Your task to perform on an android device: Check the weather Image 0: 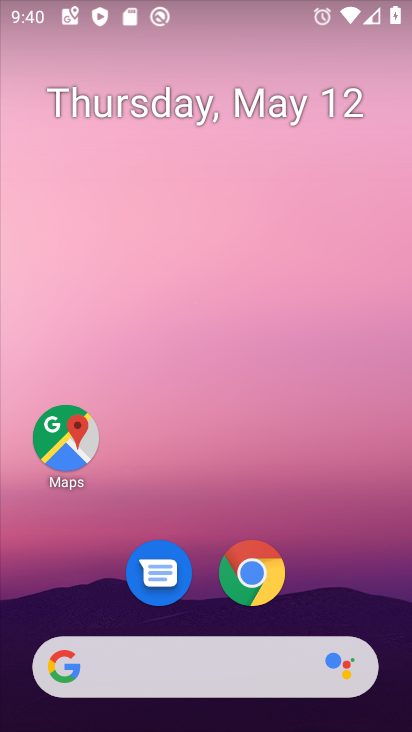
Step 0: drag from (324, 575) to (251, 102)
Your task to perform on an android device: Check the weather Image 1: 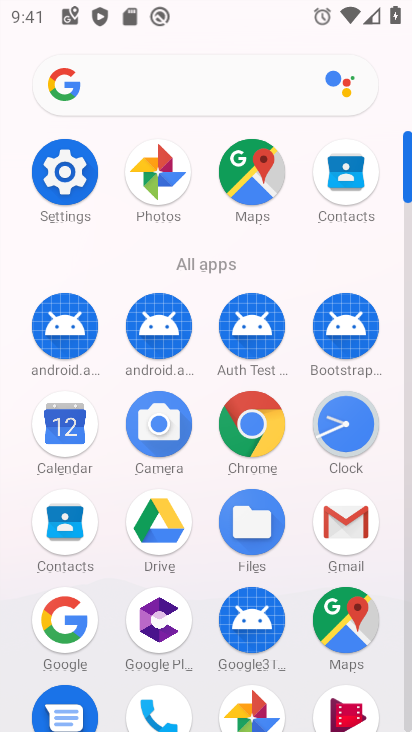
Step 1: click (60, 619)
Your task to perform on an android device: Check the weather Image 2: 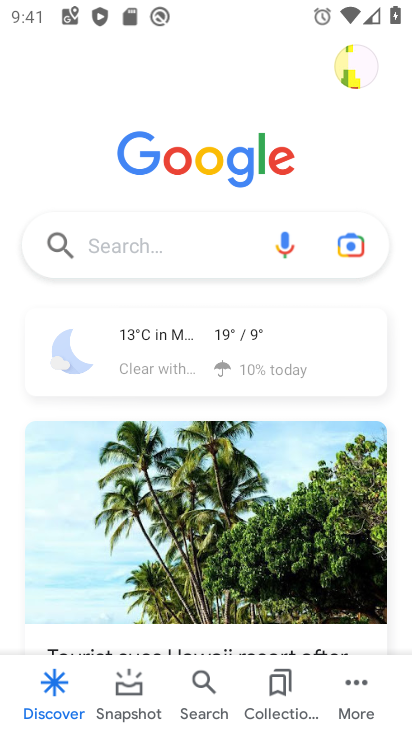
Step 2: click (178, 367)
Your task to perform on an android device: Check the weather Image 3: 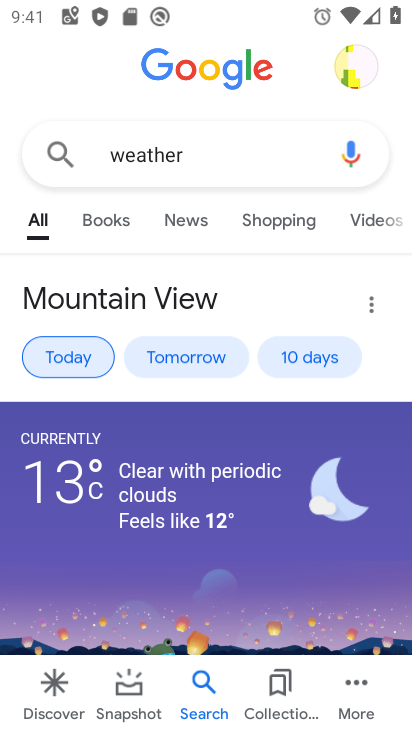
Step 3: task complete